Your task to perform on an android device: Go to settings Image 0: 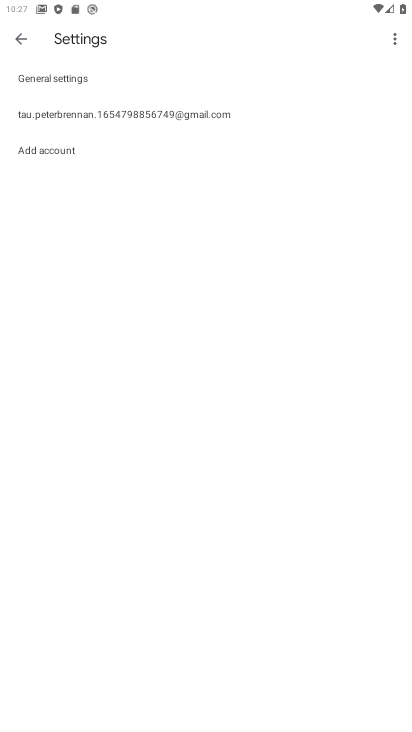
Step 0: press home button
Your task to perform on an android device: Go to settings Image 1: 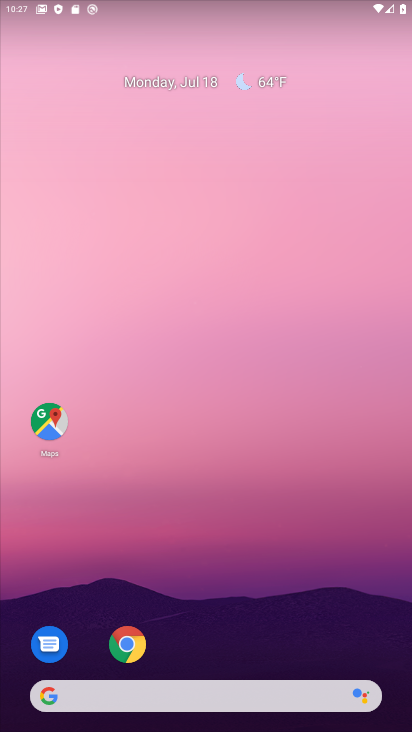
Step 1: drag from (272, 615) to (209, 15)
Your task to perform on an android device: Go to settings Image 2: 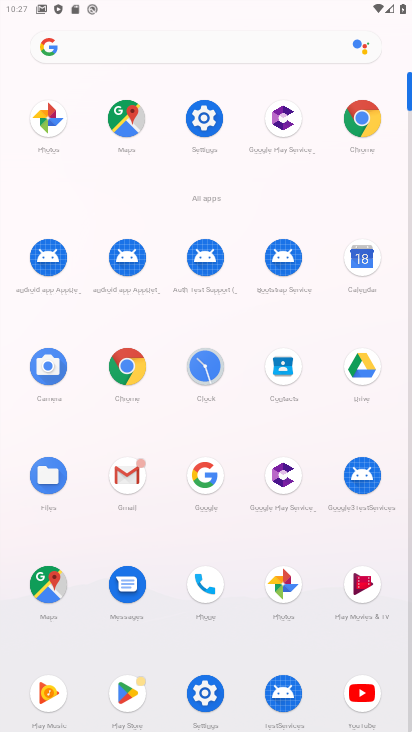
Step 2: click (203, 118)
Your task to perform on an android device: Go to settings Image 3: 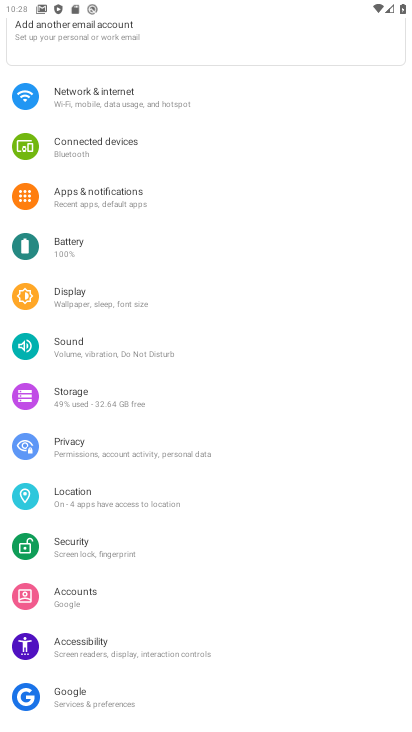
Step 3: task complete